Your task to perform on an android device: Open the calendar and show me this week's events Image 0: 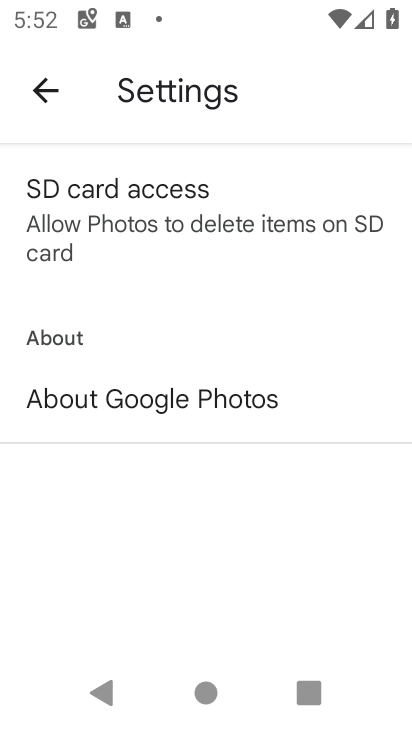
Step 0: press home button
Your task to perform on an android device: Open the calendar and show me this week's events Image 1: 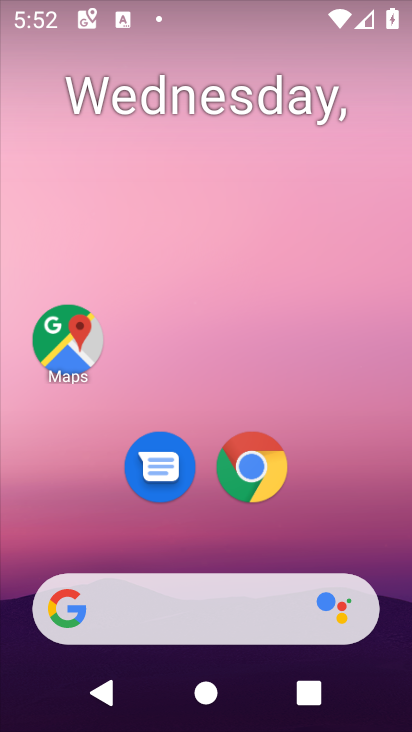
Step 1: drag from (298, 436) to (293, 2)
Your task to perform on an android device: Open the calendar and show me this week's events Image 2: 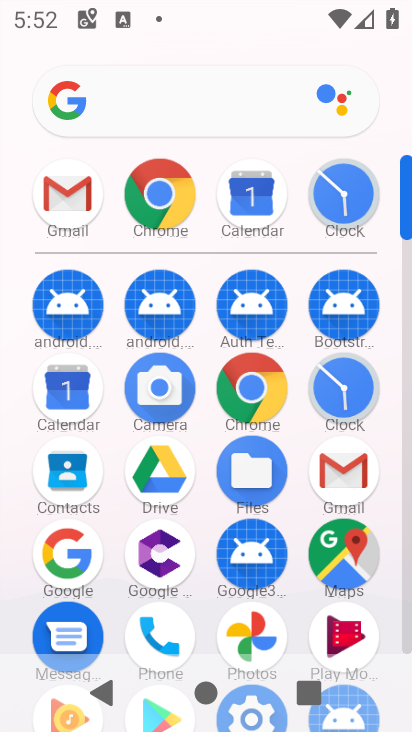
Step 2: click (81, 376)
Your task to perform on an android device: Open the calendar and show me this week's events Image 3: 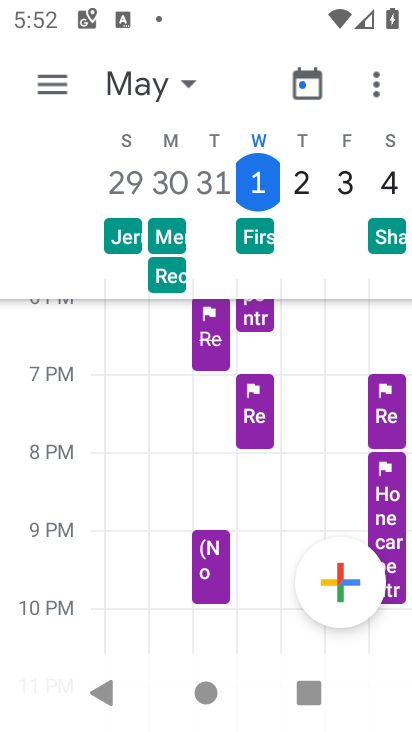
Step 3: task complete